Your task to perform on an android device: change the clock display to show seconds Image 0: 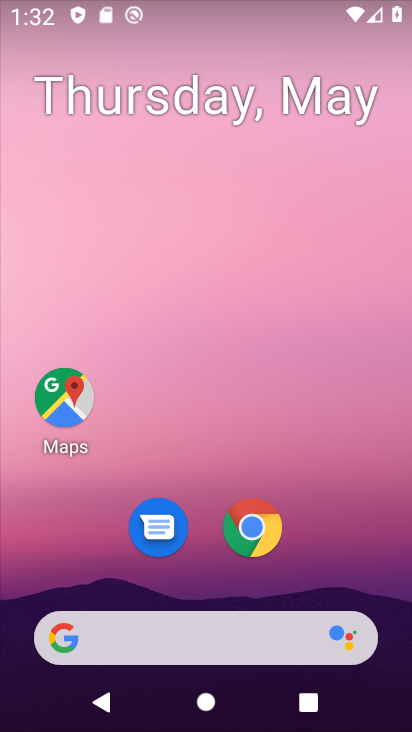
Step 0: drag from (329, 566) to (305, 204)
Your task to perform on an android device: change the clock display to show seconds Image 1: 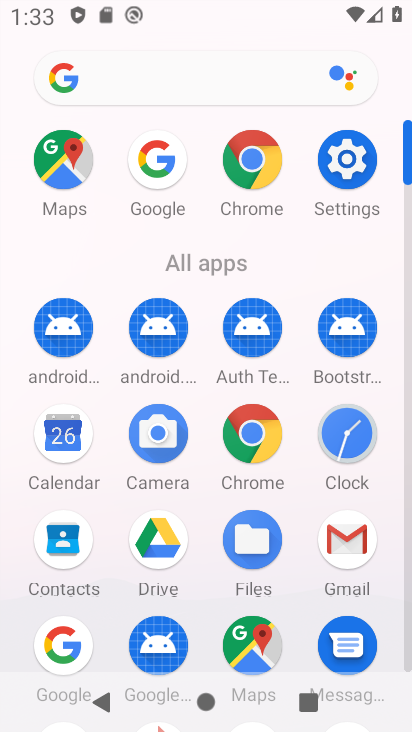
Step 1: click (368, 414)
Your task to perform on an android device: change the clock display to show seconds Image 2: 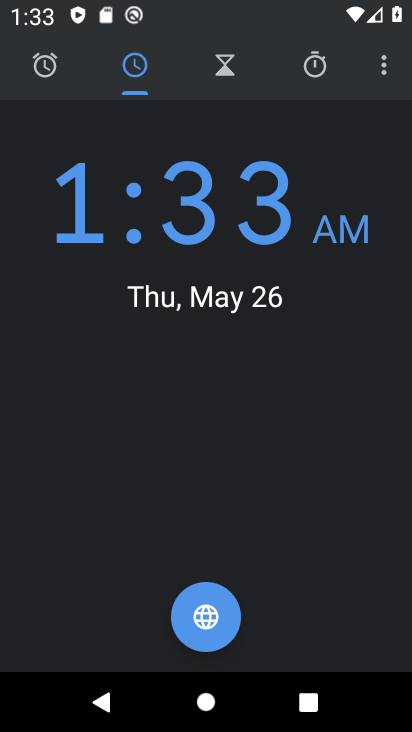
Step 2: click (305, 79)
Your task to perform on an android device: change the clock display to show seconds Image 3: 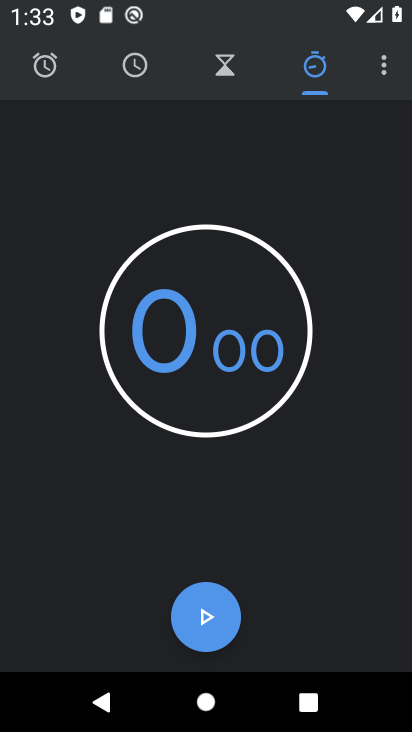
Step 3: click (371, 62)
Your task to perform on an android device: change the clock display to show seconds Image 4: 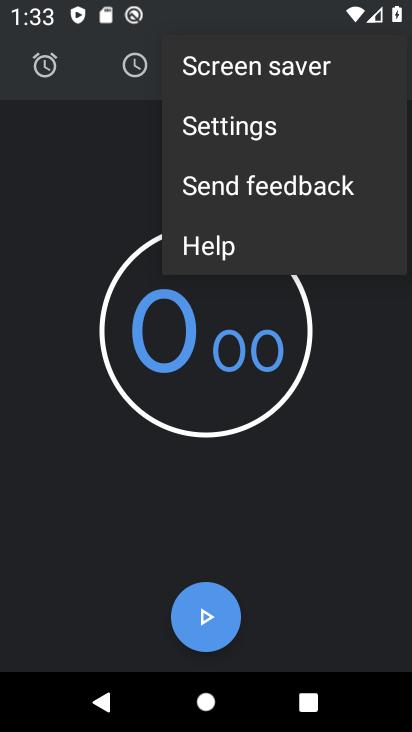
Step 4: click (252, 124)
Your task to perform on an android device: change the clock display to show seconds Image 5: 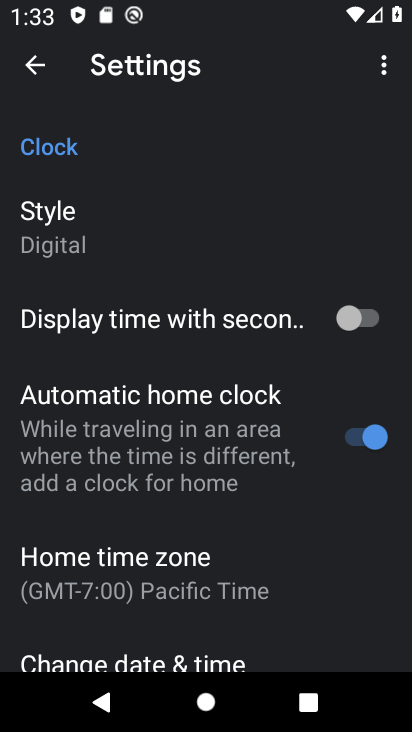
Step 5: click (136, 340)
Your task to perform on an android device: change the clock display to show seconds Image 6: 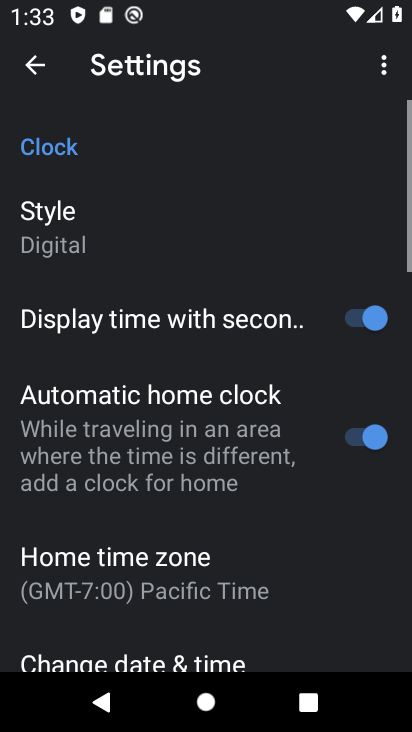
Step 6: task complete